Your task to perform on an android device: Go to Yahoo.com Image 0: 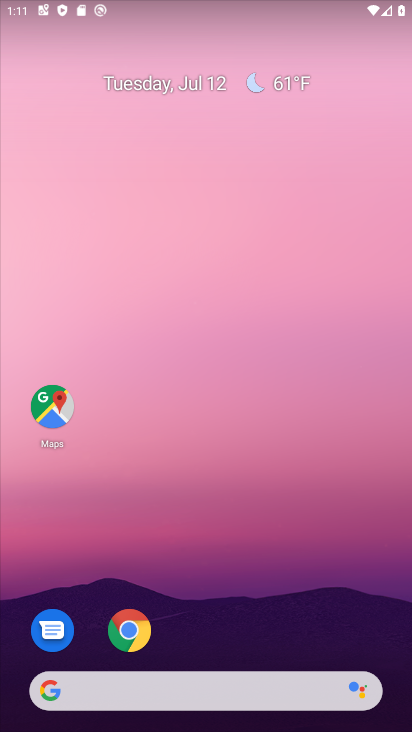
Step 0: click (132, 632)
Your task to perform on an android device: Go to Yahoo.com Image 1: 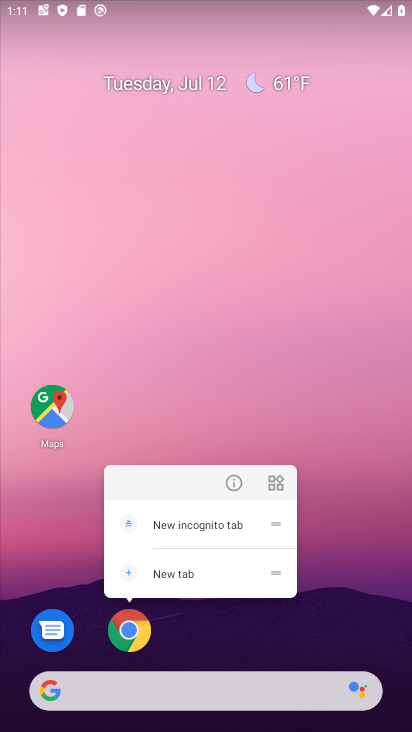
Step 1: click (121, 633)
Your task to perform on an android device: Go to Yahoo.com Image 2: 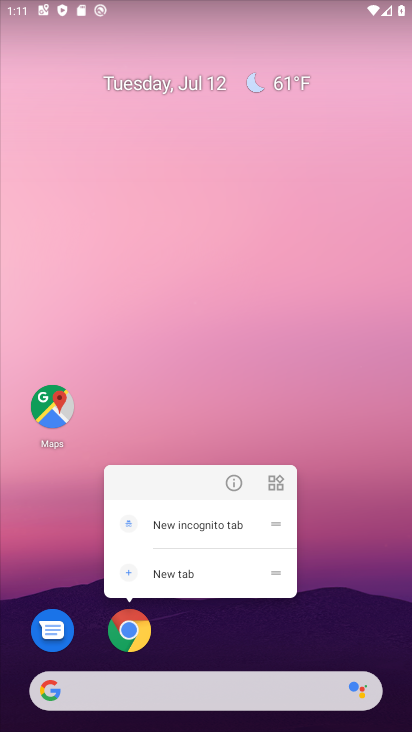
Step 2: click (122, 631)
Your task to perform on an android device: Go to Yahoo.com Image 3: 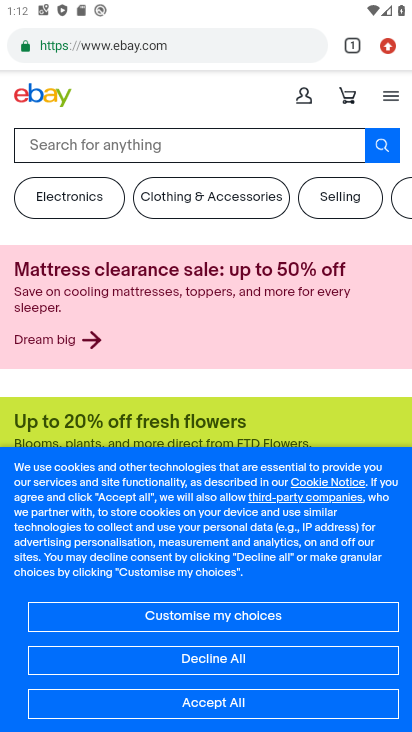
Step 3: click (349, 60)
Your task to perform on an android device: Go to Yahoo.com Image 4: 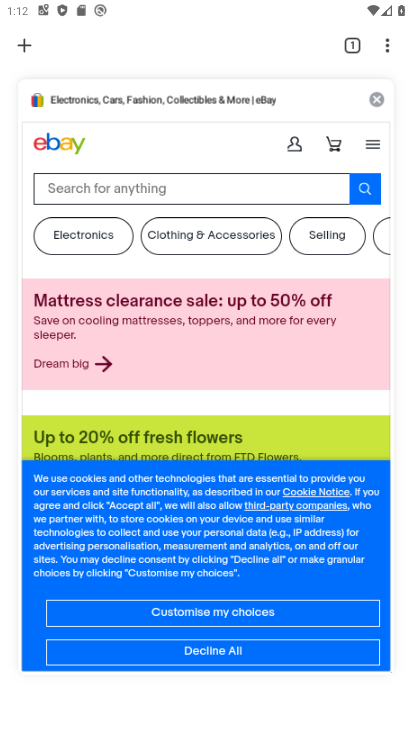
Step 4: click (25, 43)
Your task to perform on an android device: Go to Yahoo.com Image 5: 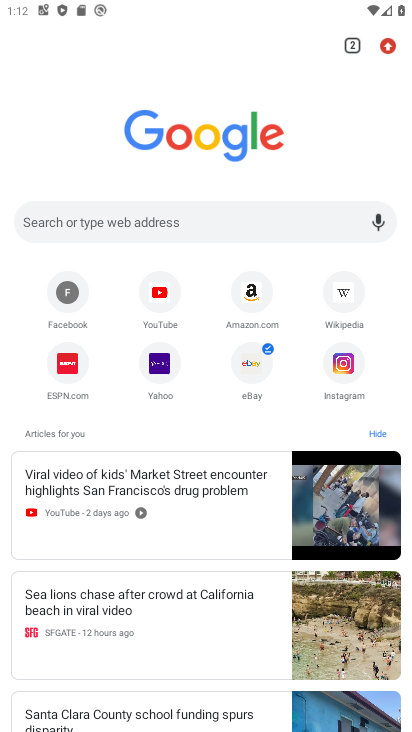
Step 5: click (167, 363)
Your task to perform on an android device: Go to Yahoo.com Image 6: 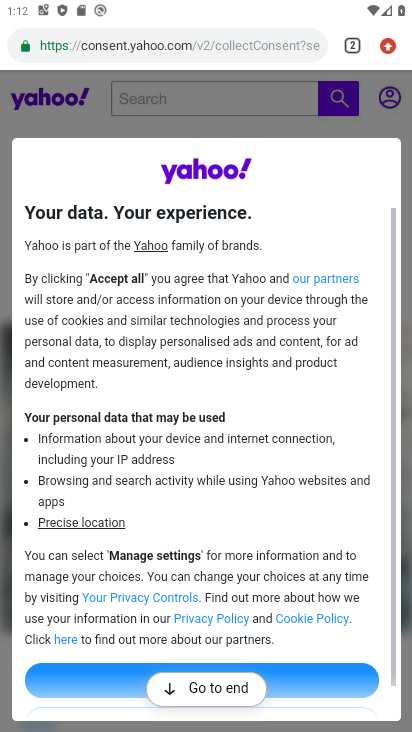
Step 6: click (335, 677)
Your task to perform on an android device: Go to Yahoo.com Image 7: 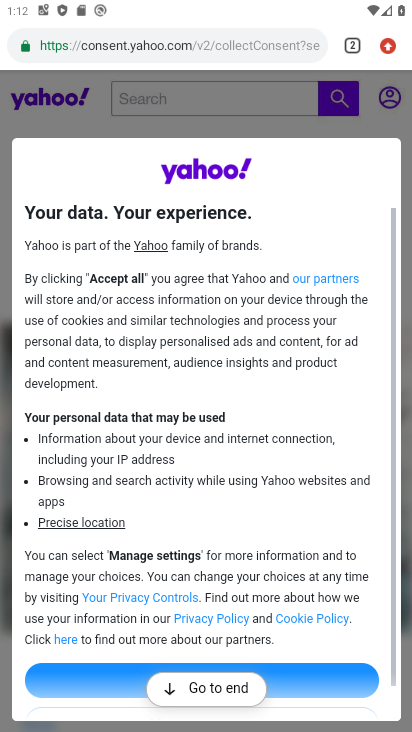
Step 7: task complete